Your task to perform on an android device: open app "Indeed Job Search" Image 0: 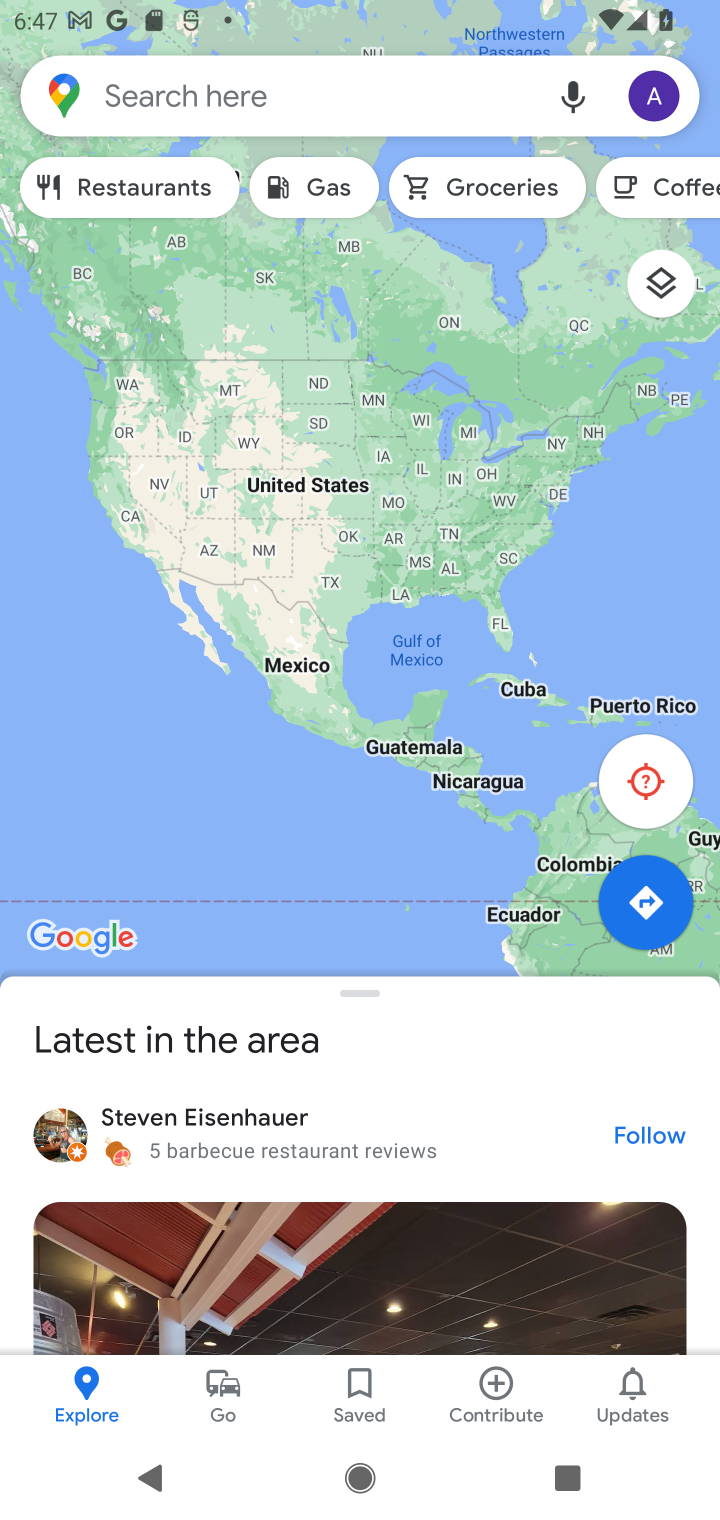
Step 0: press home button
Your task to perform on an android device: open app "Indeed Job Search" Image 1: 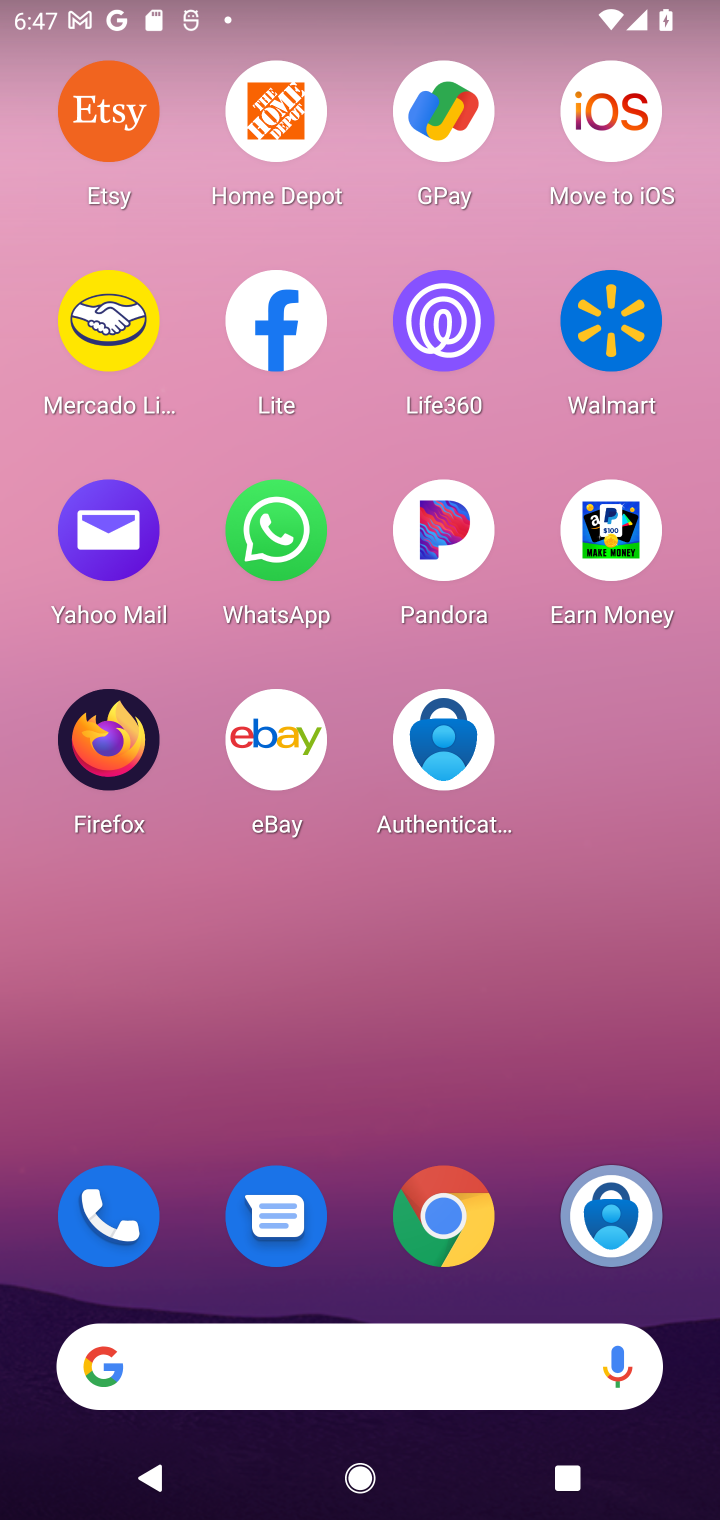
Step 1: drag from (528, 1227) to (556, 325)
Your task to perform on an android device: open app "Indeed Job Search" Image 2: 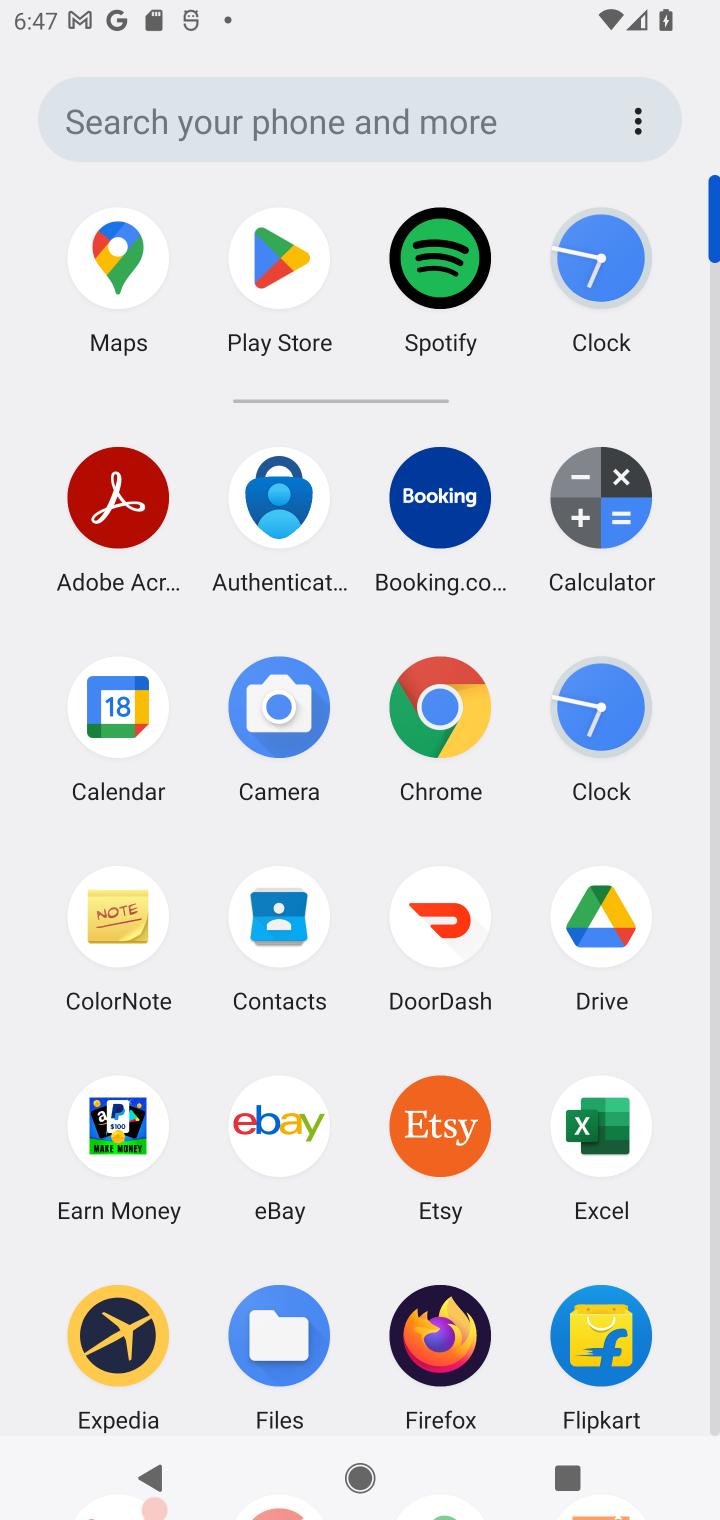
Step 2: drag from (686, 1349) to (663, 657)
Your task to perform on an android device: open app "Indeed Job Search" Image 3: 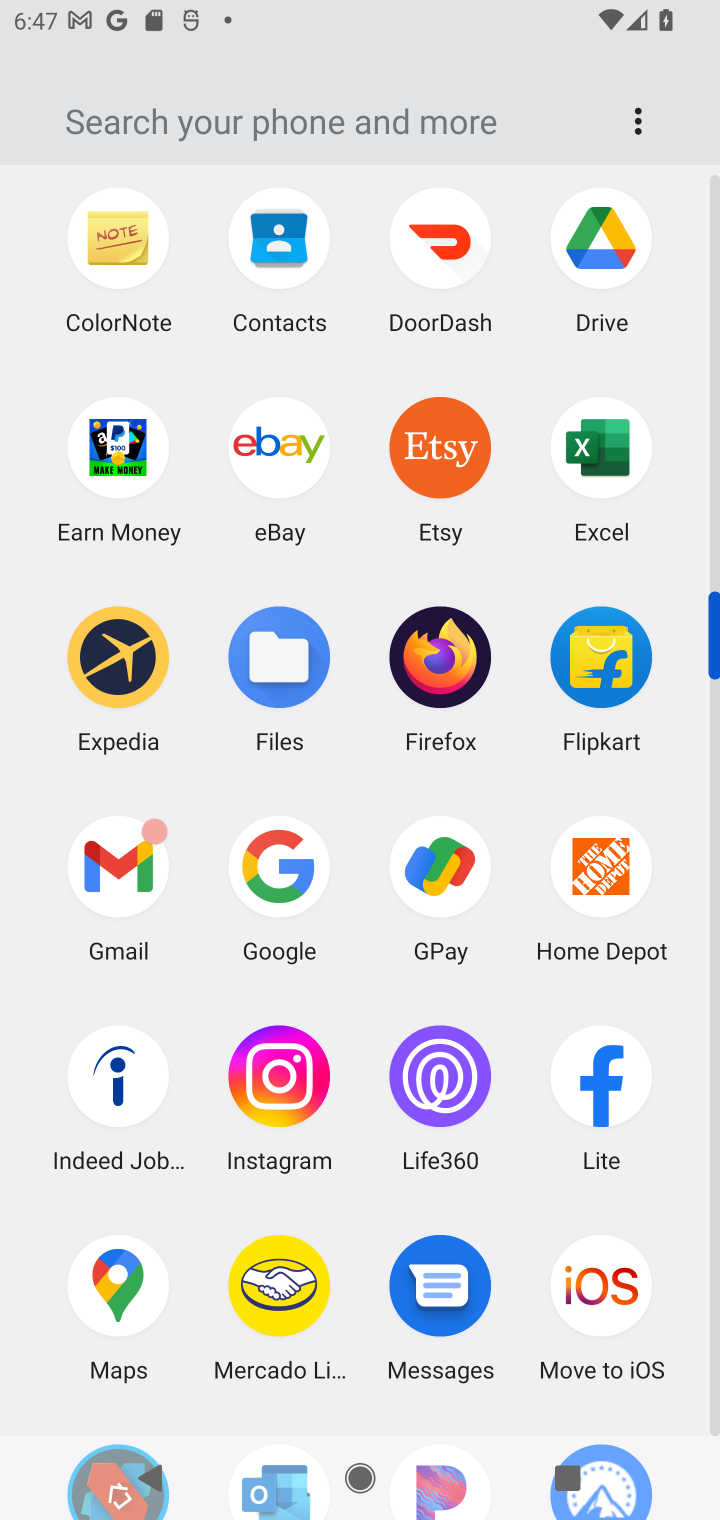
Step 3: click (112, 1078)
Your task to perform on an android device: open app "Indeed Job Search" Image 4: 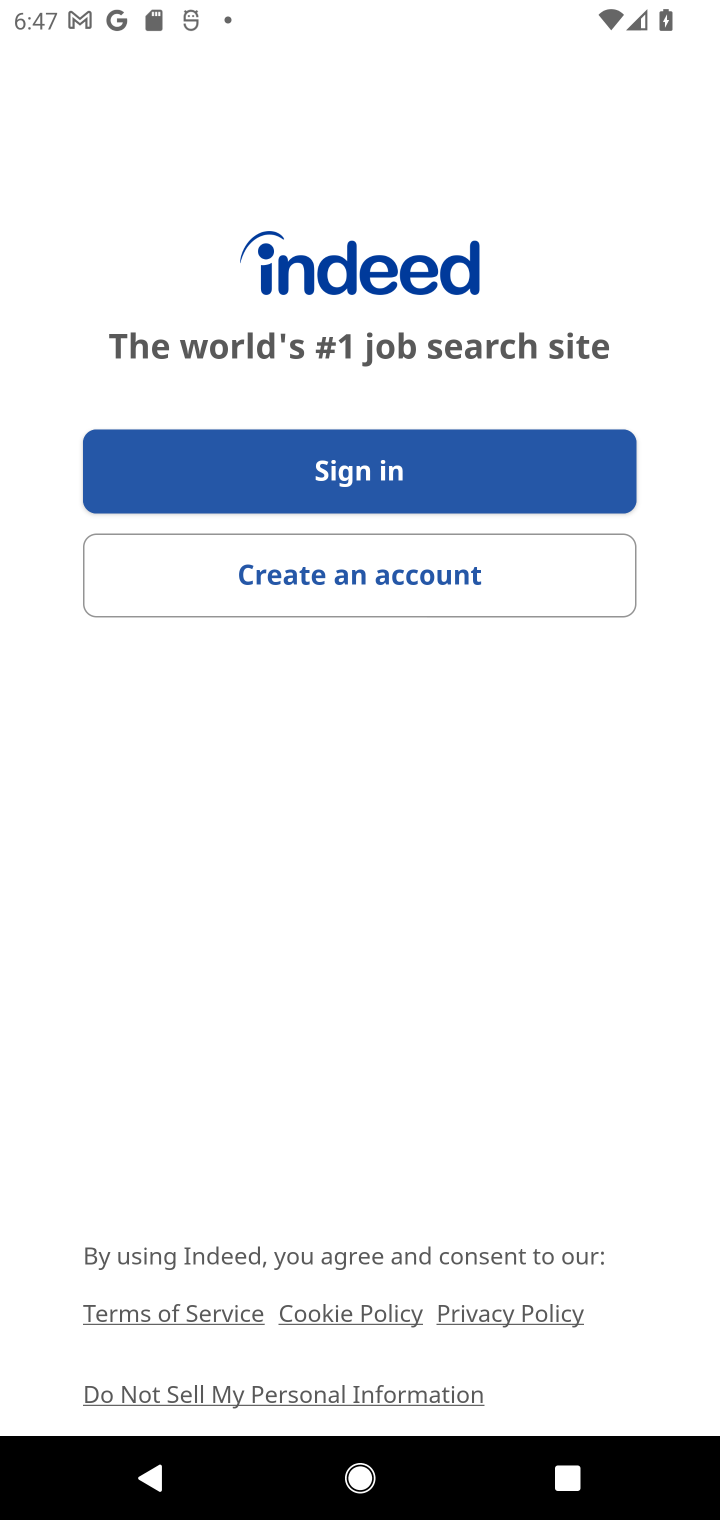
Step 4: task complete